Your task to perform on an android device: change timer sound Image 0: 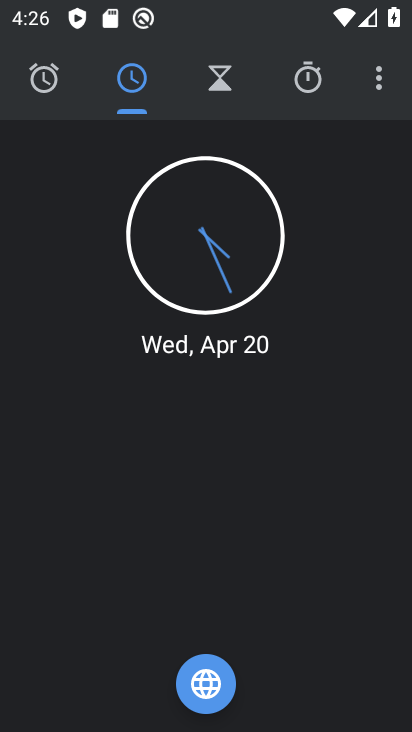
Step 0: click (380, 105)
Your task to perform on an android device: change timer sound Image 1: 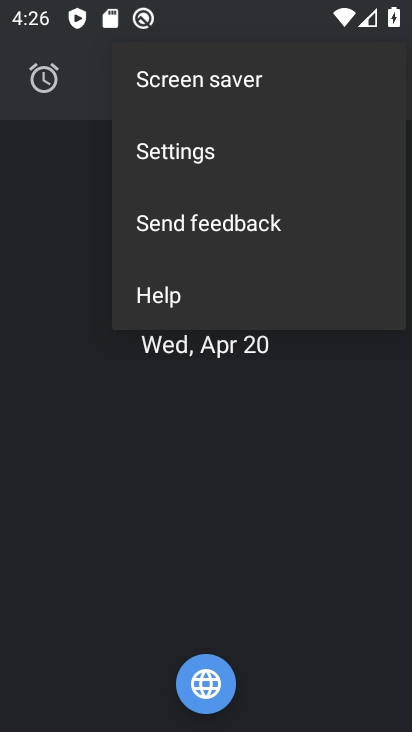
Step 1: click (199, 148)
Your task to perform on an android device: change timer sound Image 2: 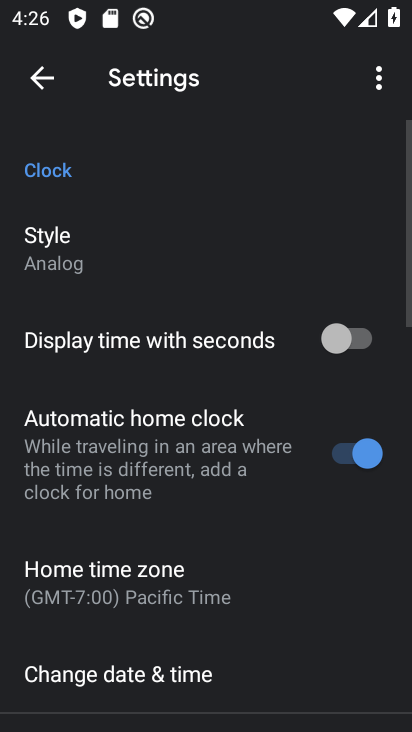
Step 2: drag from (211, 405) to (224, 232)
Your task to perform on an android device: change timer sound Image 3: 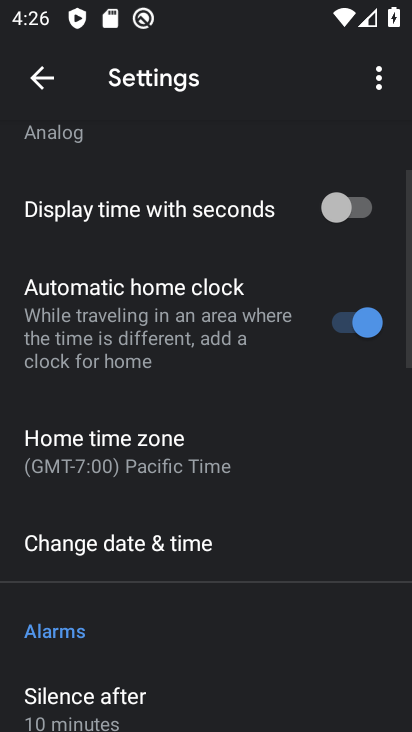
Step 3: drag from (230, 563) to (279, 215)
Your task to perform on an android device: change timer sound Image 4: 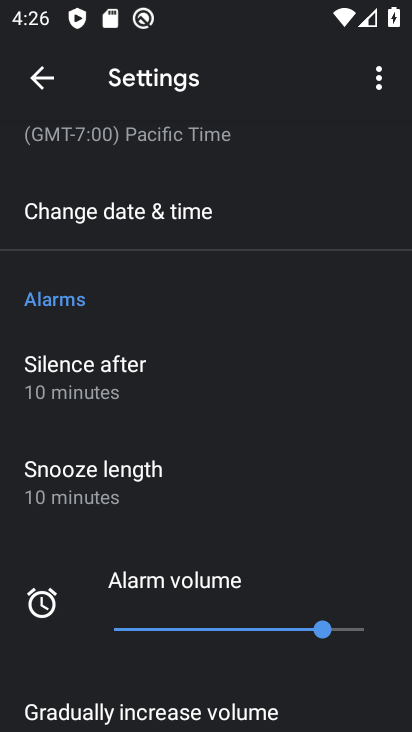
Step 4: drag from (261, 528) to (280, 136)
Your task to perform on an android device: change timer sound Image 5: 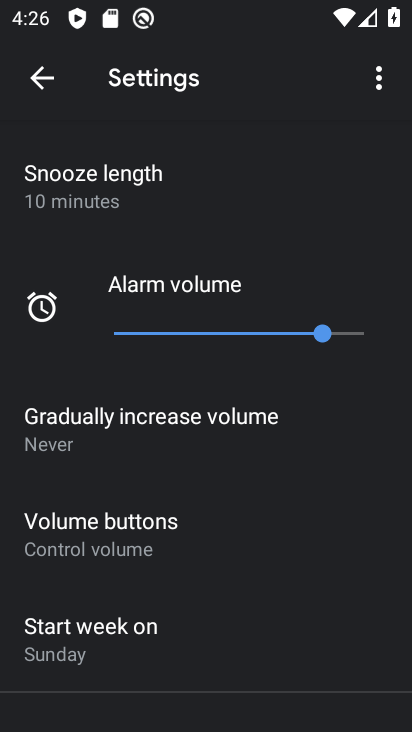
Step 5: drag from (226, 489) to (227, 199)
Your task to perform on an android device: change timer sound Image 6: 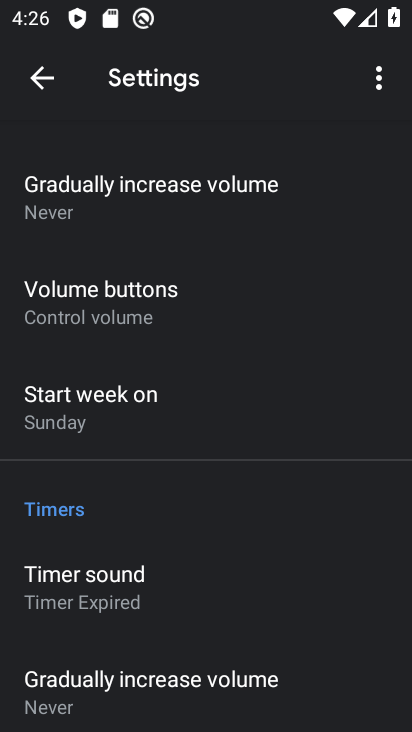
Step 6: click (208, 578)
Your task to perform on an android device: change timer sound Image 7: 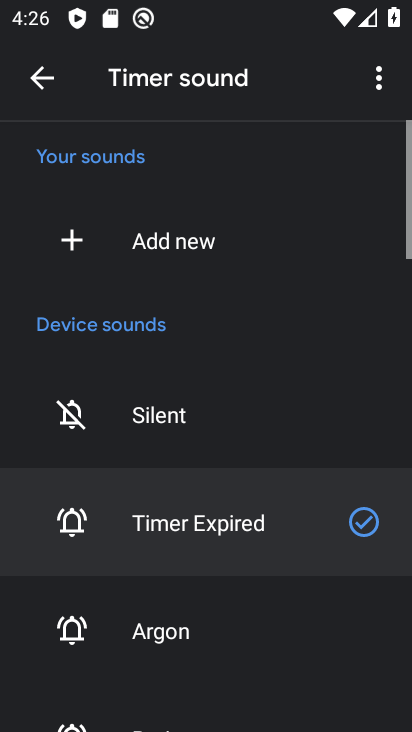
Step 7: click (182, 634)
Your task to perform on an android device: change timer sound Image 8: 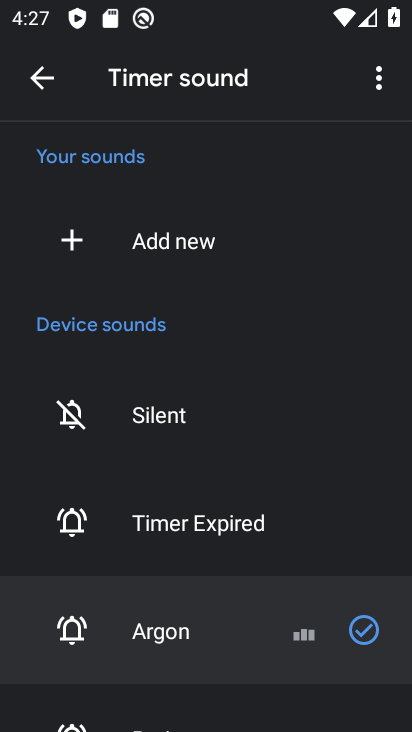
Step 8: task complete